Your task to perform on an android device: turn notification dots on Image 0: 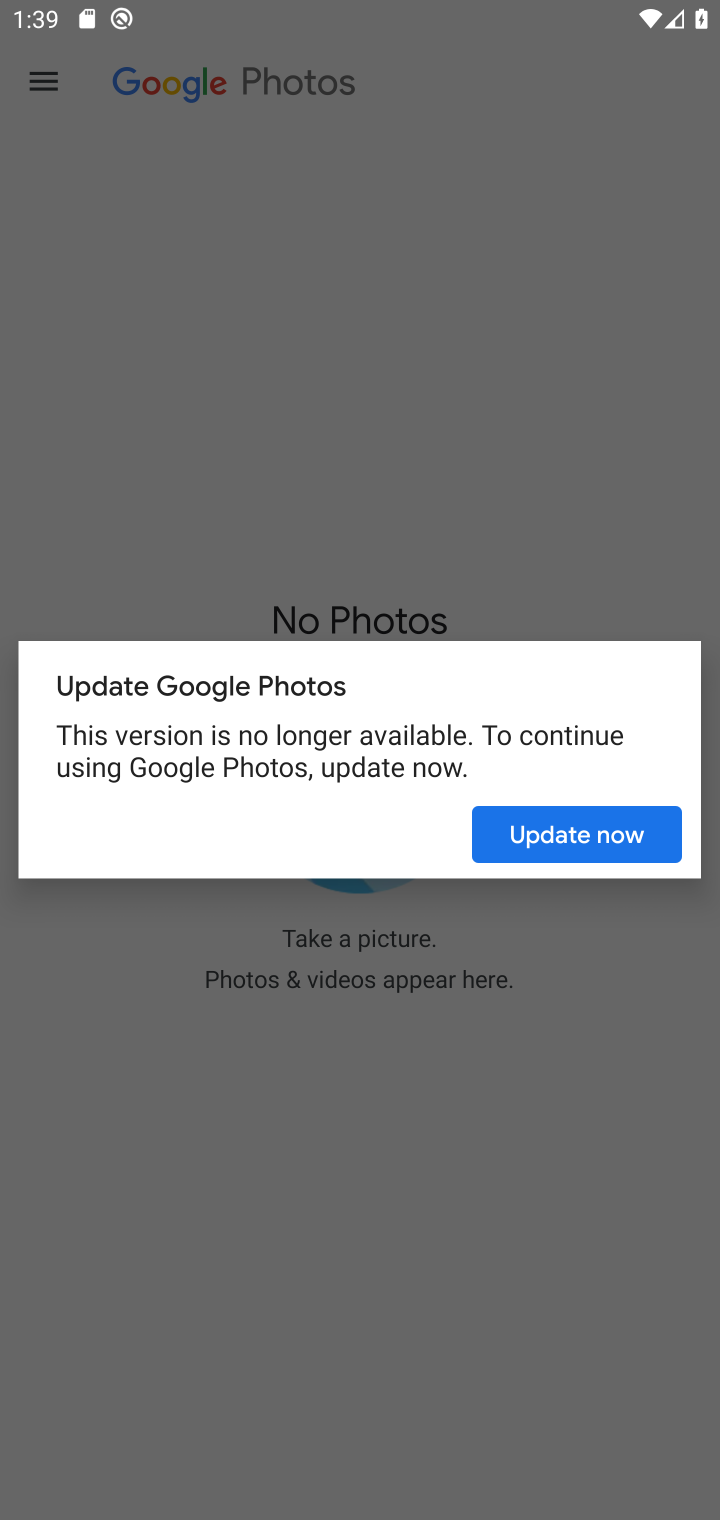
Step 0: press home button
Your task to perform on an android device: turn notification dots on Image 1: 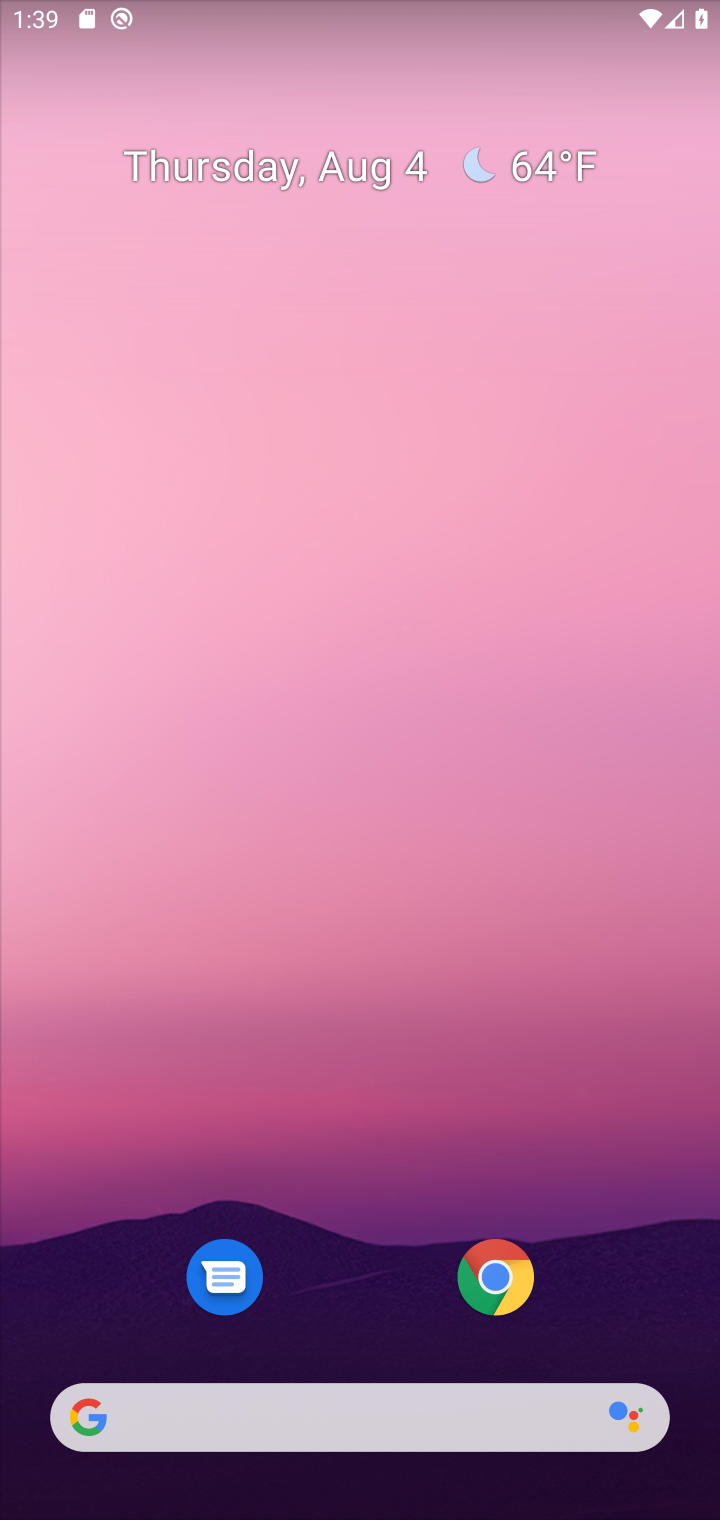
Step 1: drag from (359, 1188) to (391, 285)
Your task to perform on an android device: turn notification dots on Image 2: 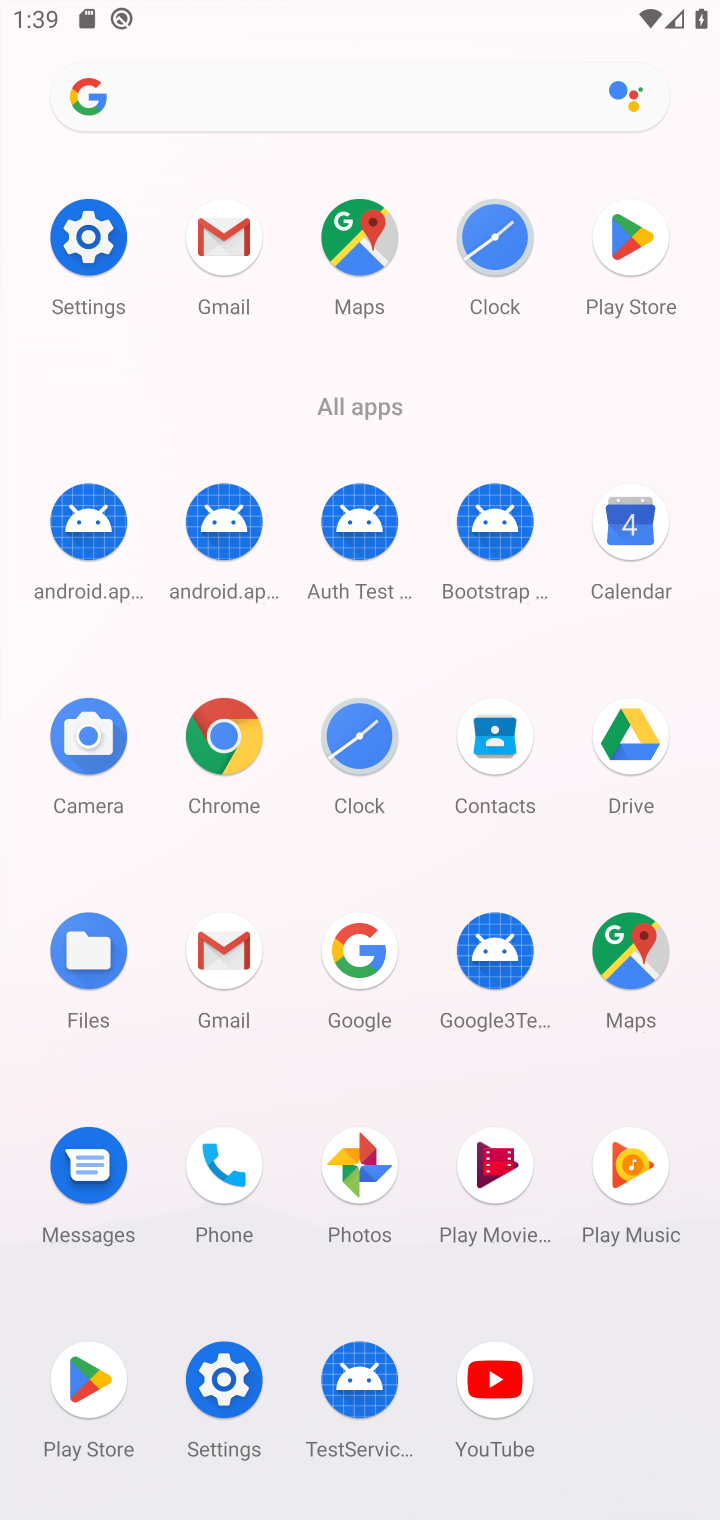
Step 2: click (95, 220)
Your task to perform on an android device: turn notification dots on Image 3: 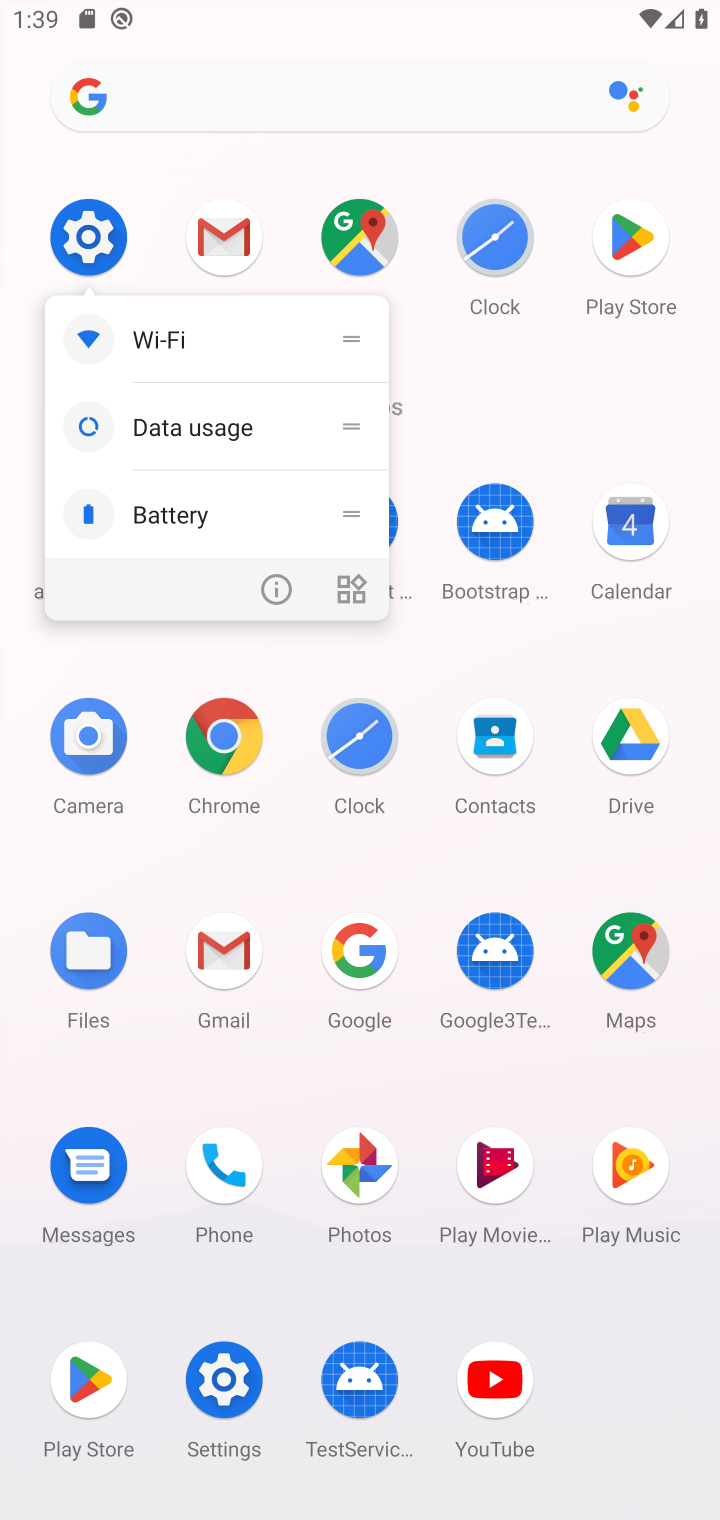
Step 3: click (87, 255)
Your task to perform on an android device: turn notification dots on Image 4: 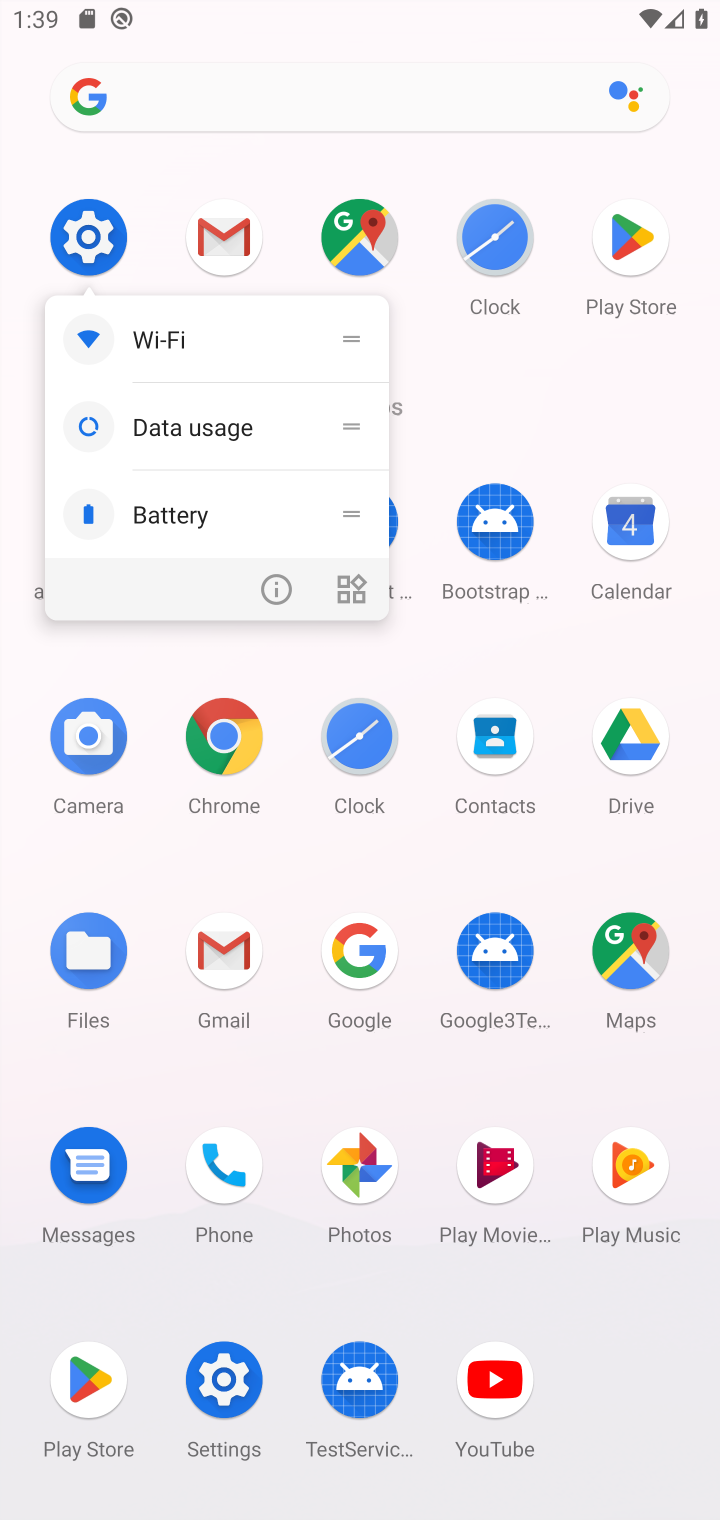
Step 4: click (87, 255)
Your task to perform on an android device: turn notification dots on Image 5: 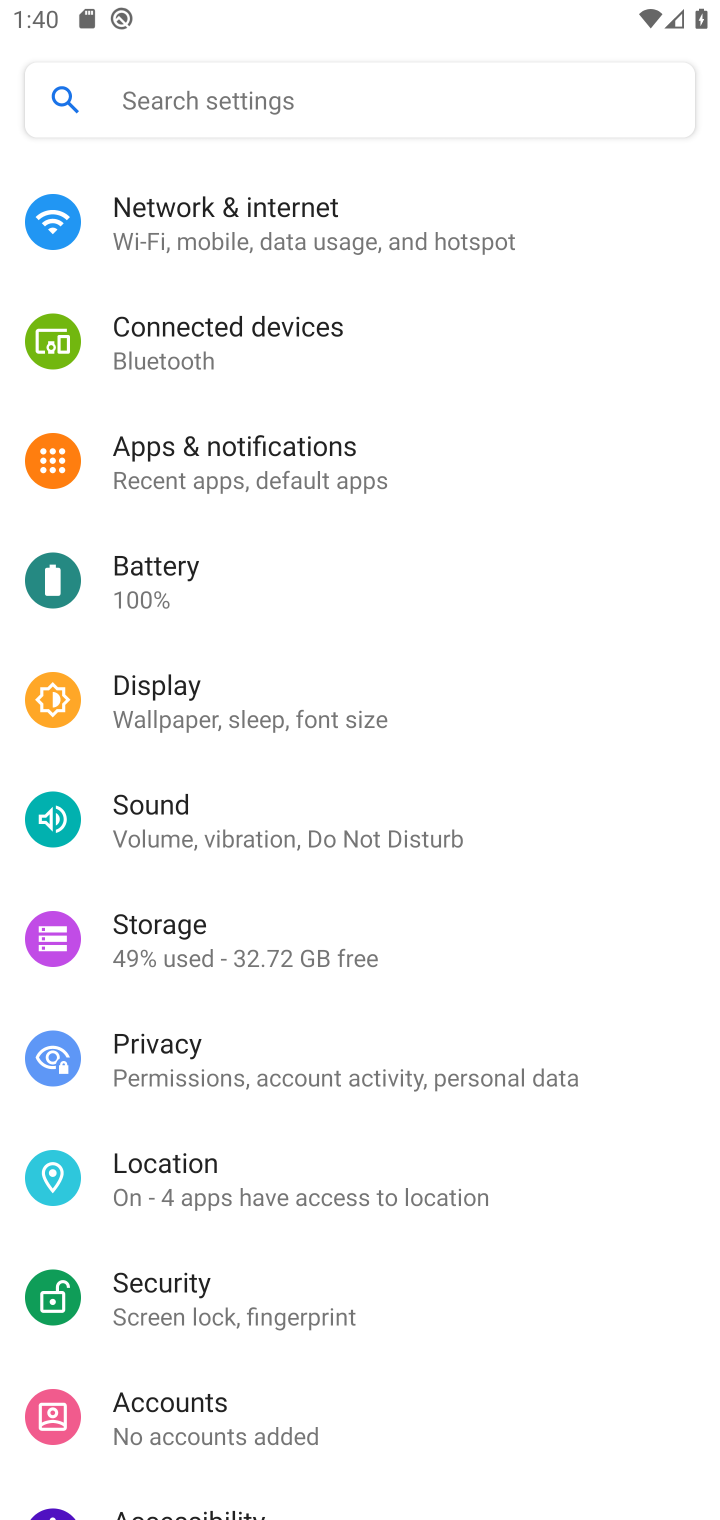
Step 5: click (111, 225)
Your task to perform on an android device: turn notification dots on Image 6: 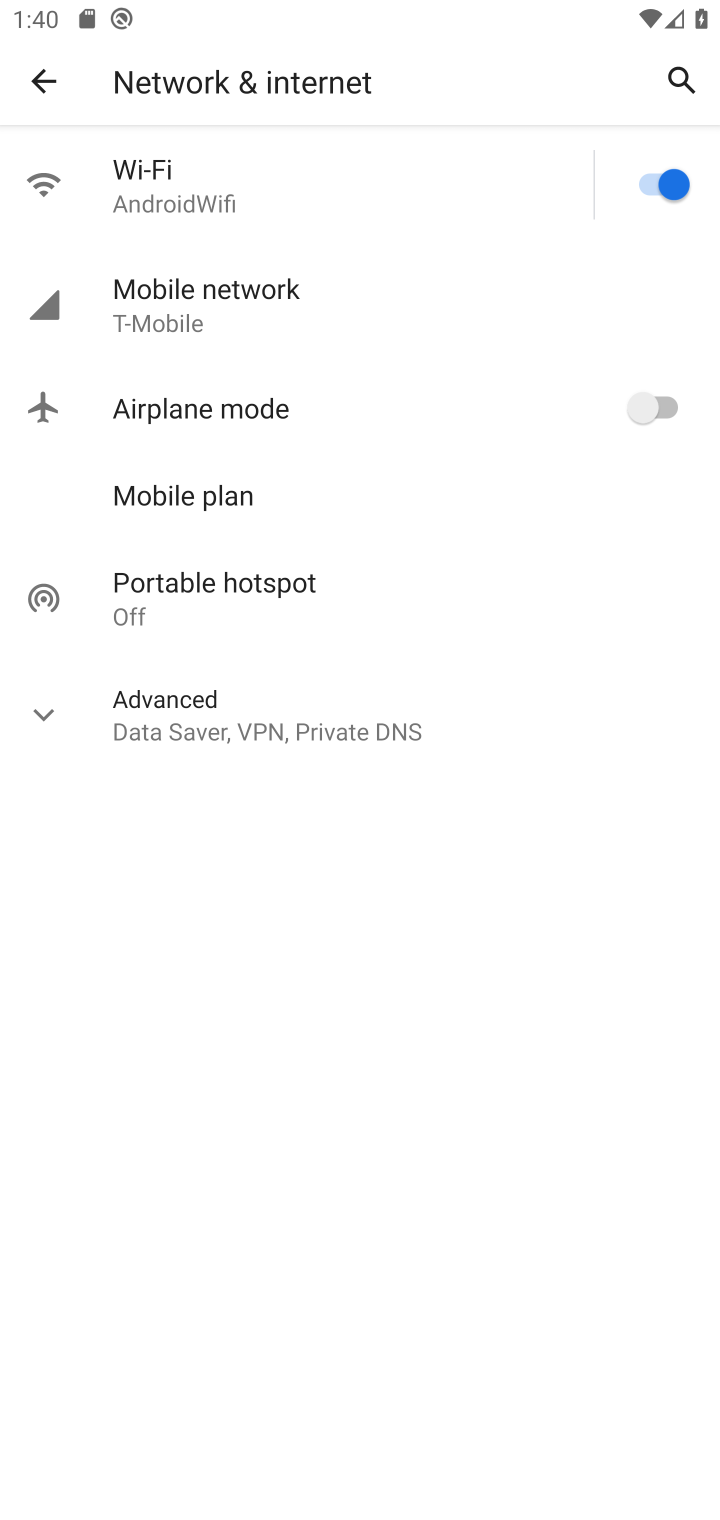
Step 6: click (43, 73)
Your task to perform on an android device: turn notification dots on Image 7: 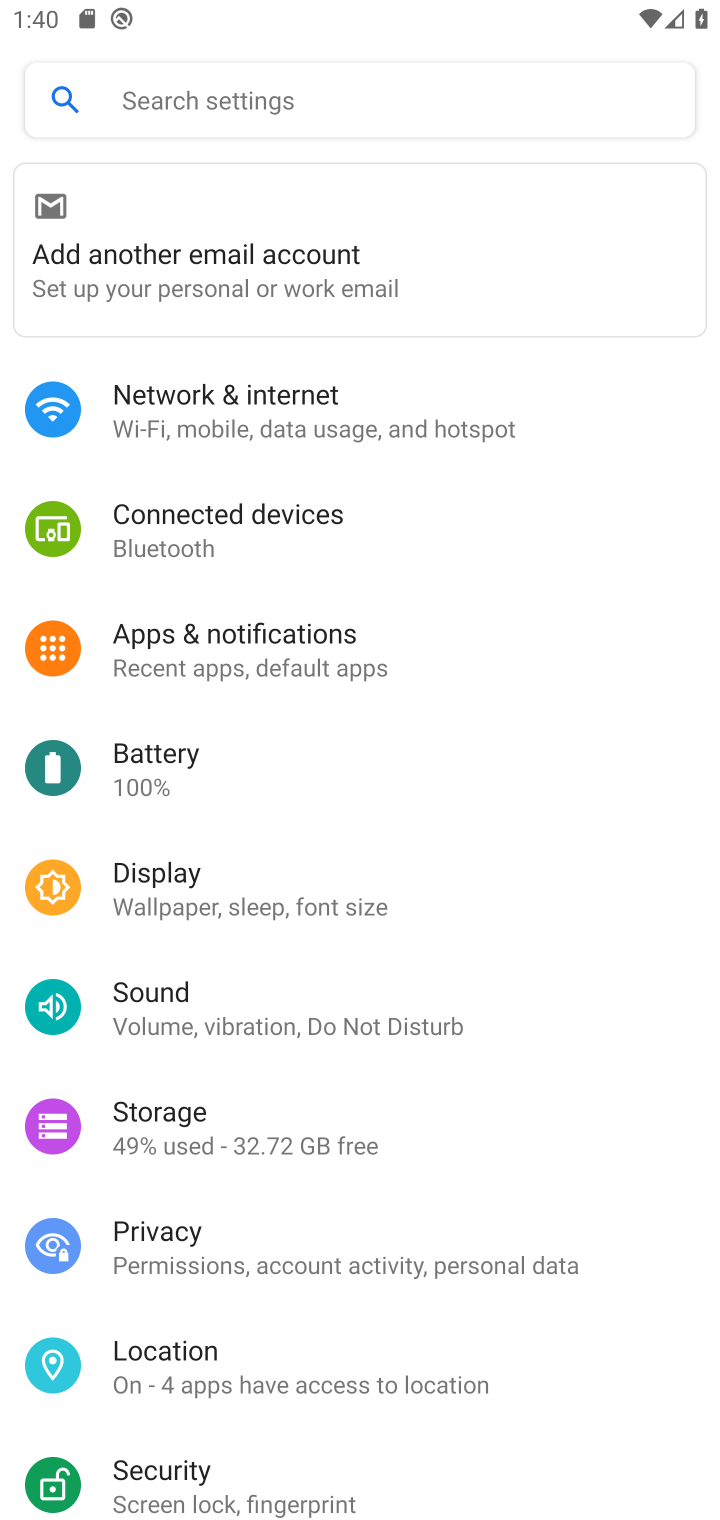
Step 7: click (282, 95)
Your task to perform on an android device: turn notification dots on Image 8: 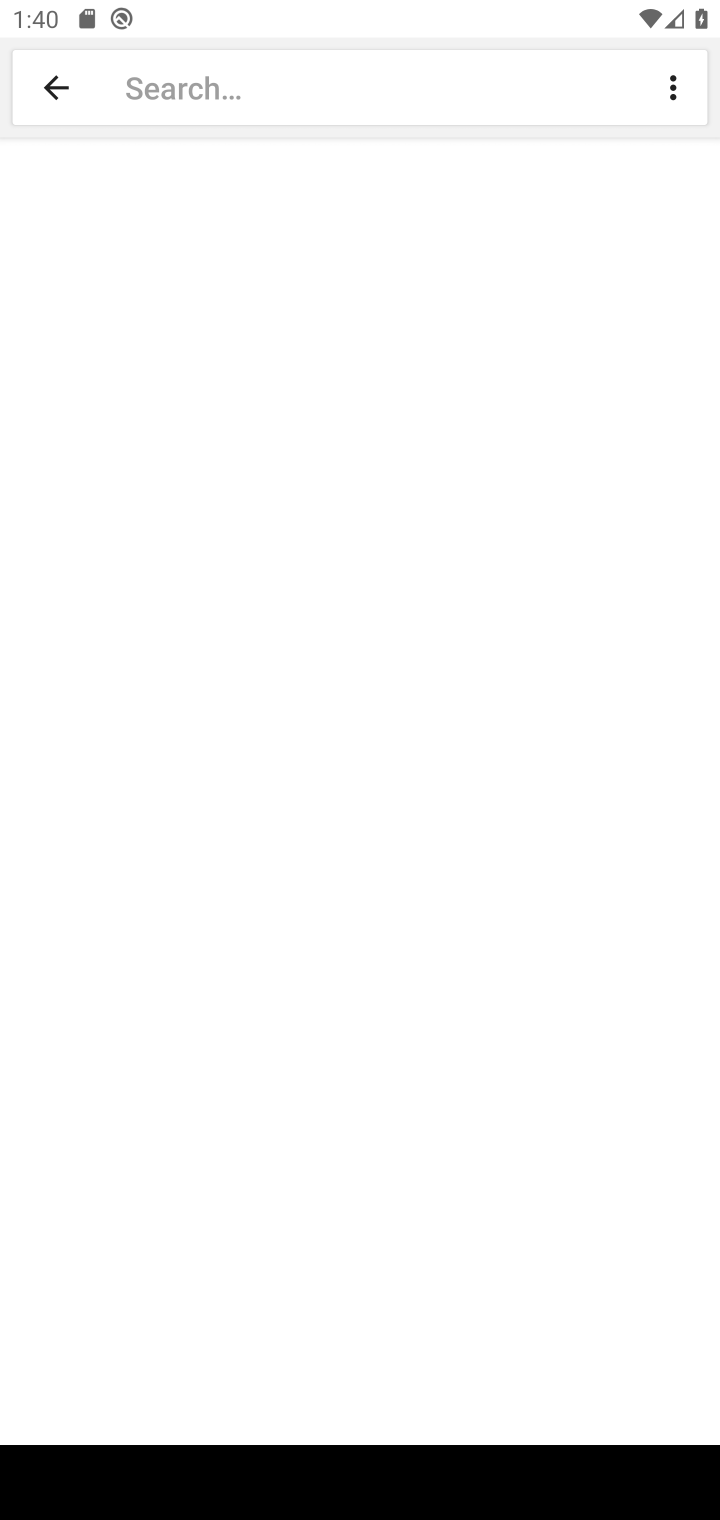
Step 8: click (300, 86)
Your task to perform on an android device: turn notification dots on Image 9: 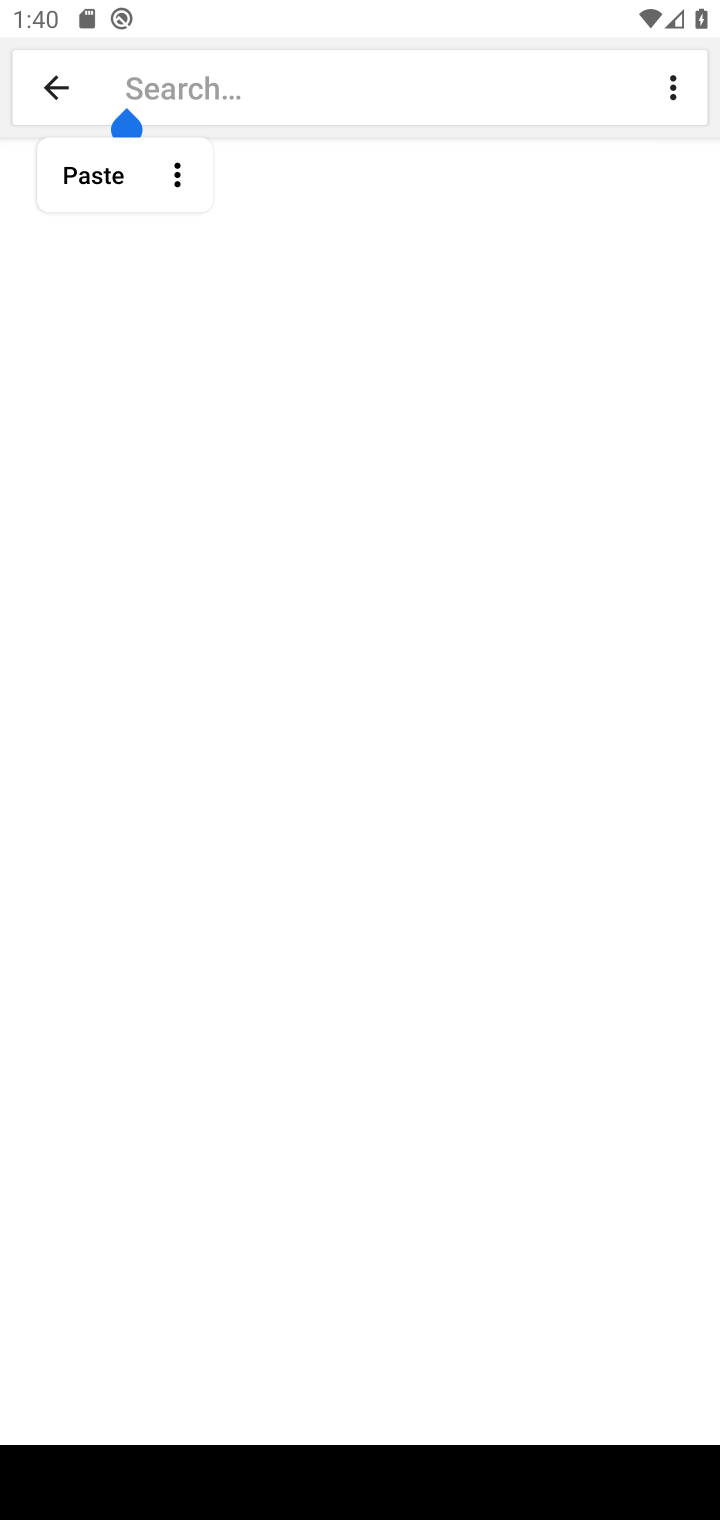
Step 9: type "notification dot "
Your task to perform on an android device: turn notification dots on Image 10: 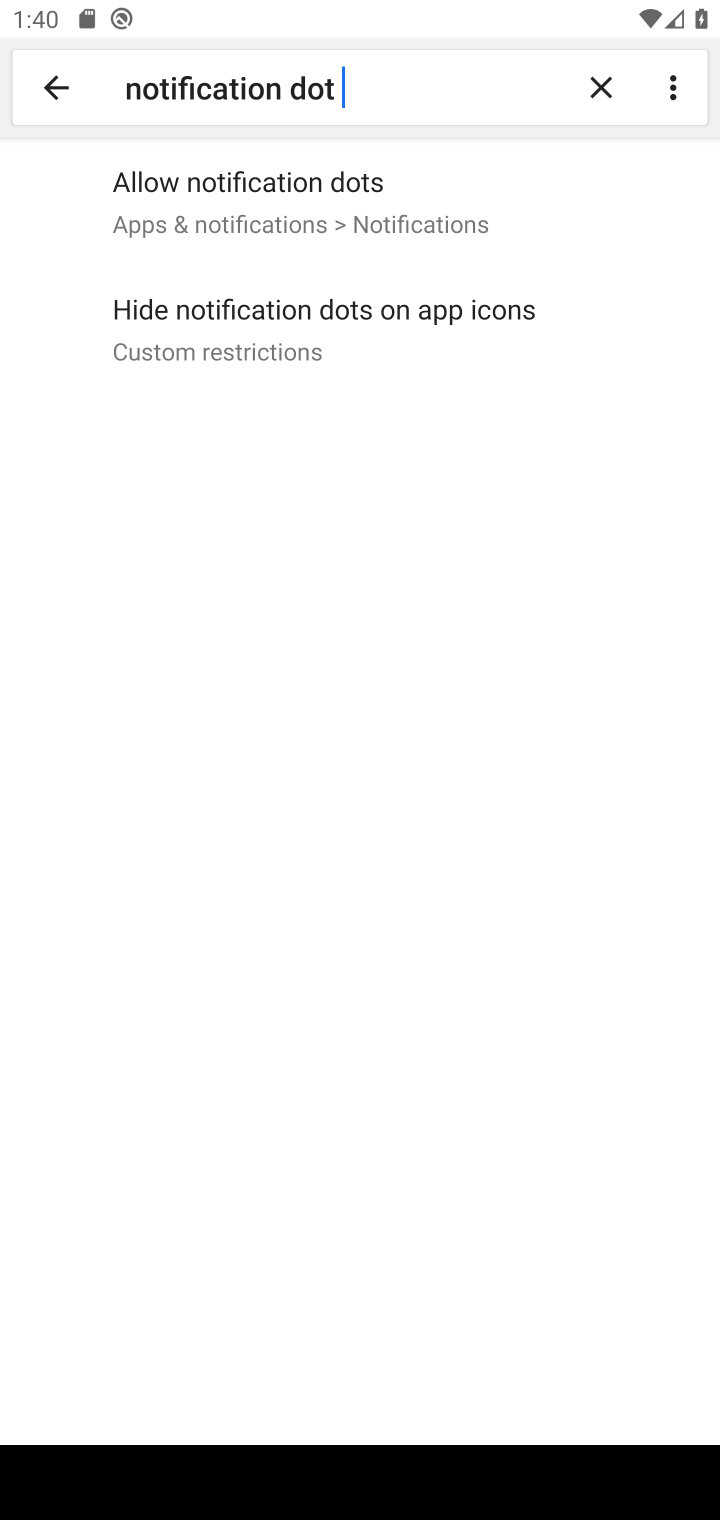
Step 10: click (382, 201)
Your task to perform on an android device: turn notification dots on Image 11: 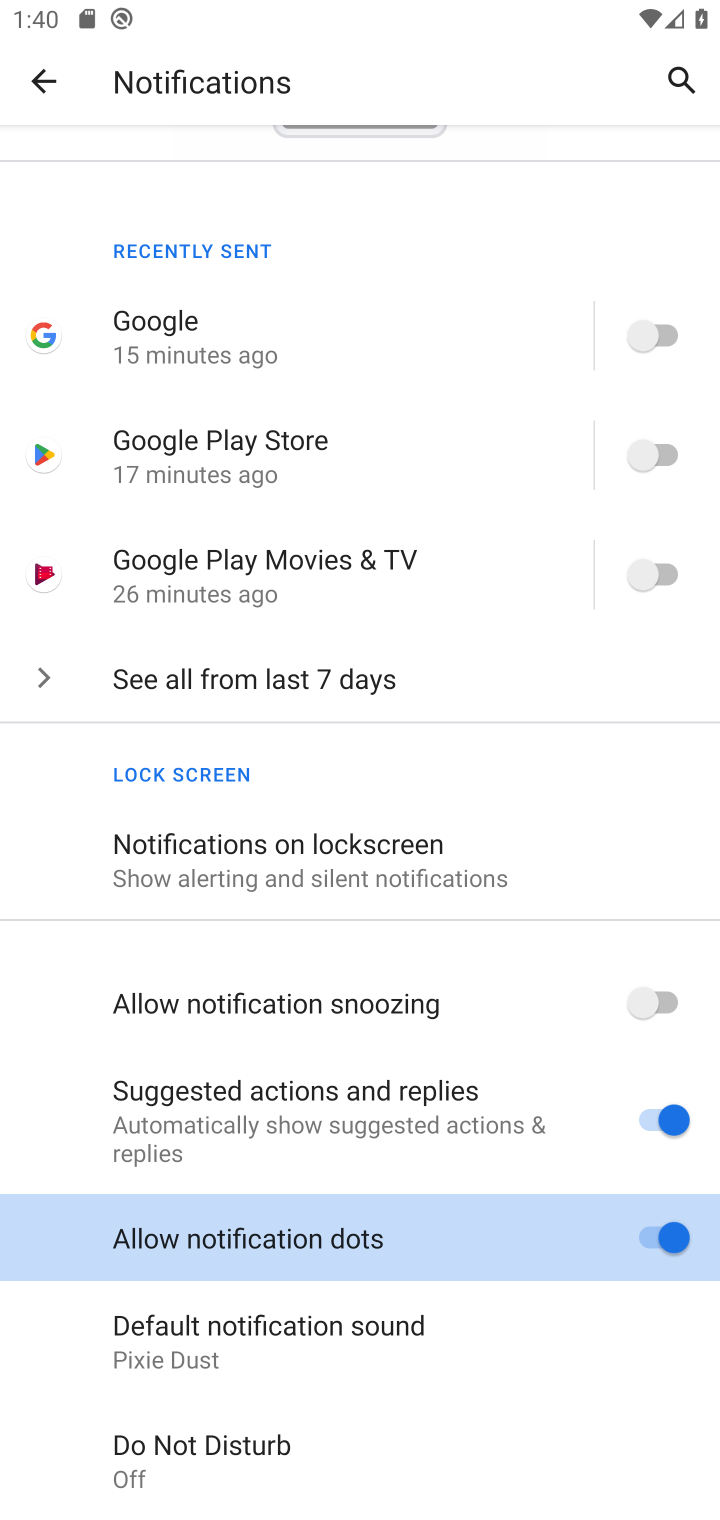
Step 11: task complete